Your task to perform on an android device: check out phone information Image 0: 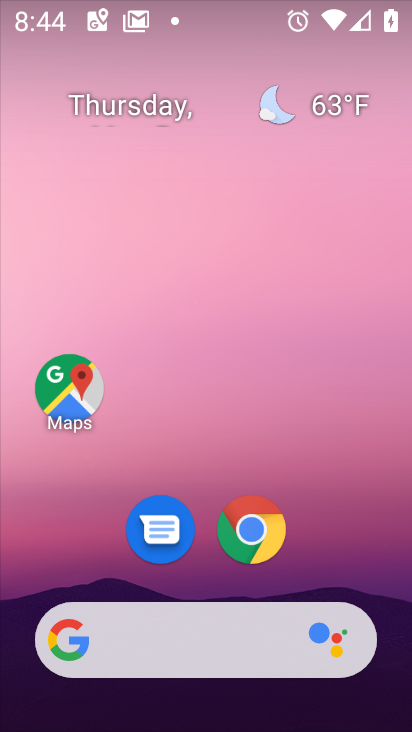
Step 0: drag from (189, 476) to (189, 52)
Your task to perform on an android device: check out phone information Image 1: 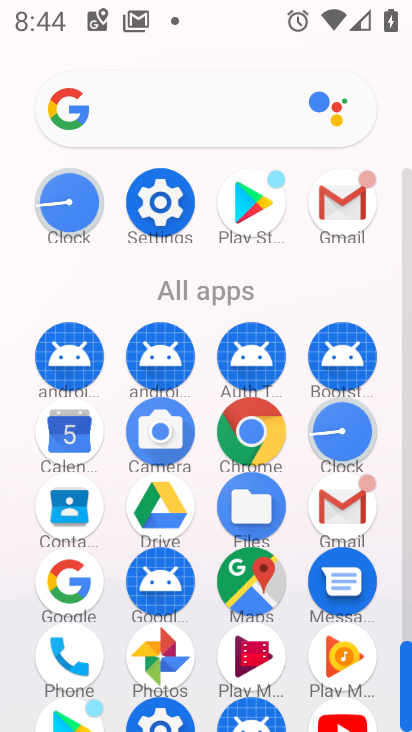
Step 1: click (162, 172)
Your task to perform on an android device: check out phone information Image 2: 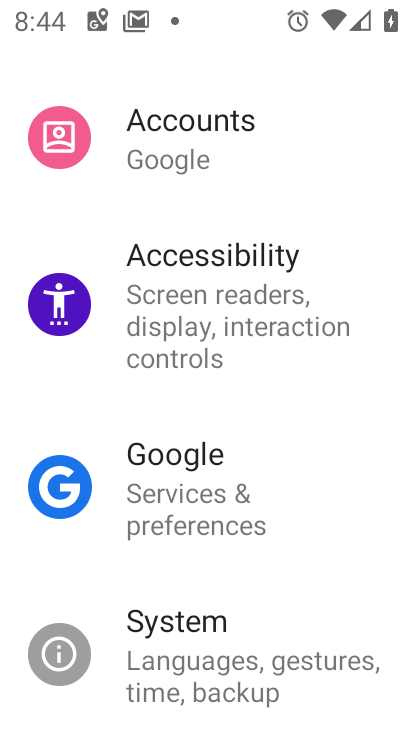
Step 2: drag from (236, 660) to (274, 142)
Your task to perform on an android device: check out phone information Image 3: 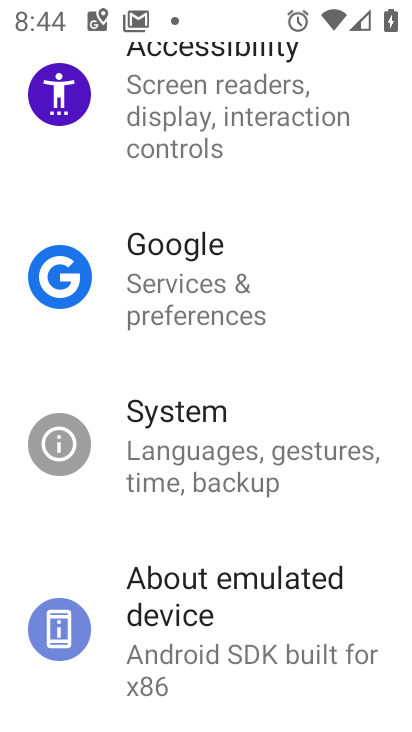
Step 3: click (239, 610)
Your task to perform on an android device: check out phone information Image 4: 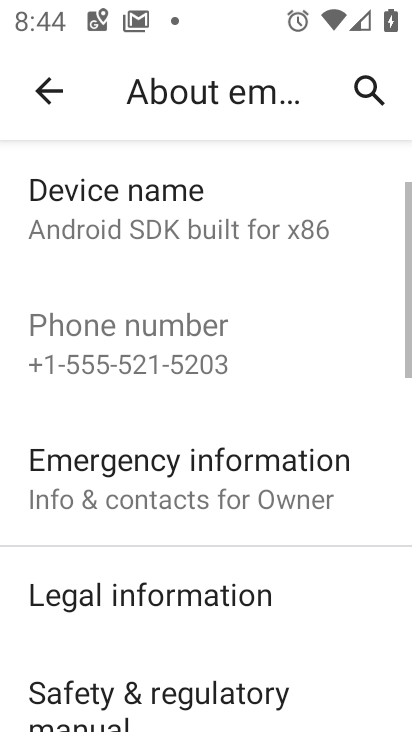
Step 4: task complete